Your task to perform on an android device: Show me popular videos on Youtube Image 0: 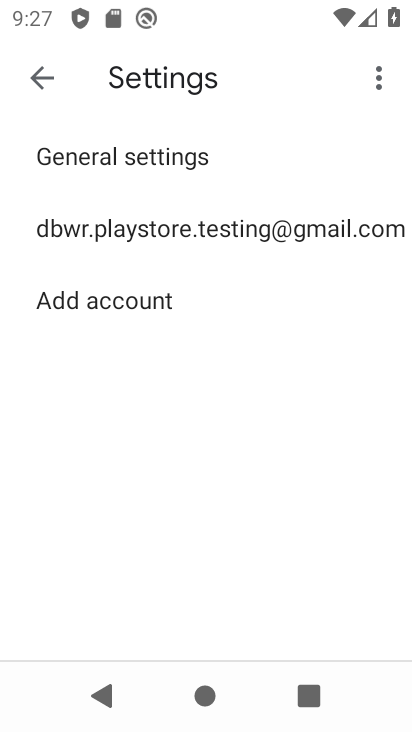
Step 0: press home button
Your task to perform on an android device: Show me popular videos on Youtube Image 1: 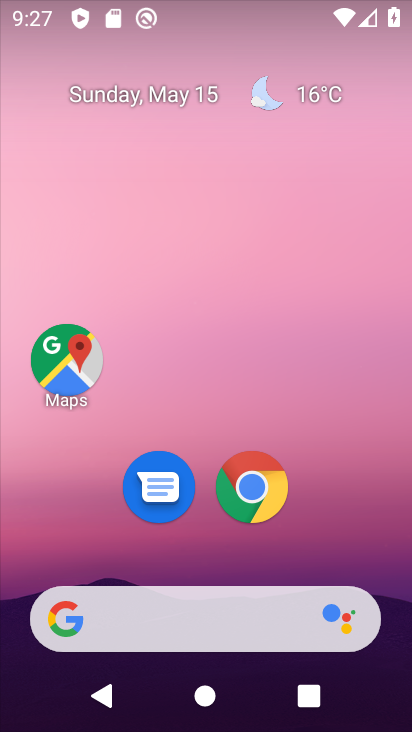
Step 1: drag from (389, 570) to (302, 60)
Your task to perform on an android device: Show me popular videos on Youtube Image 2: 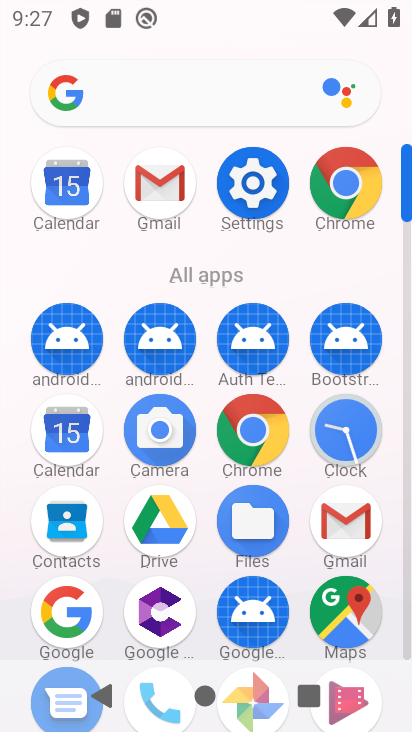
Step 2: click (411, 649)
Your task to perform on an android device: Show me popular videos on Youtube Image 3: 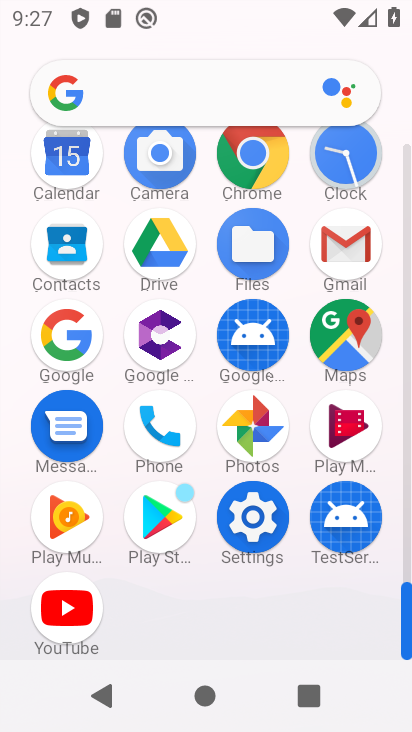
Step 3: click (66, 612)
Your task to perform on an android device: Show me popular videos on Youtube Image 4: 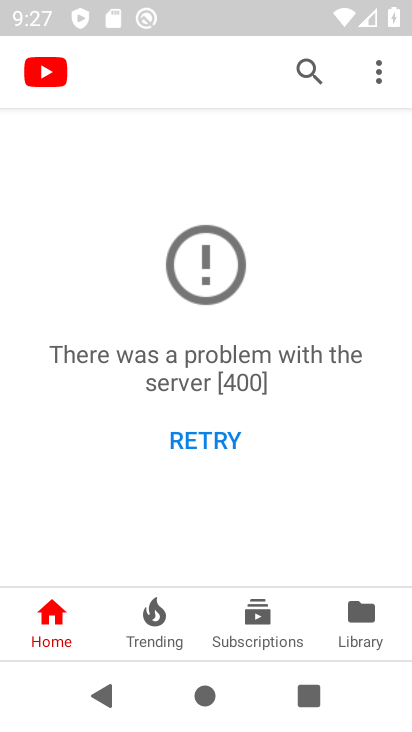
Step 4: click (159, 620)
Your task to perform on an android device: Show me popular videos on Youtube Image 5: 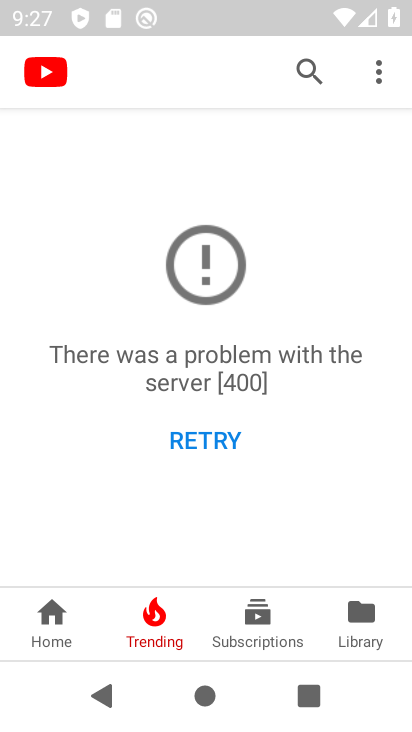
Step 5: task complete